Your task to perform on an android device: see tabs open on other devices in the chrome app Image 0: 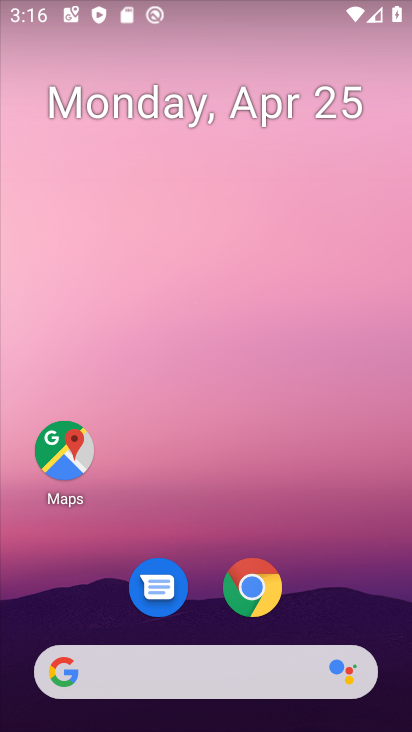
Step 0: click (246, 590)
Your task to perform on an android device: see tabs open on other devices in the chrome app Image 1: 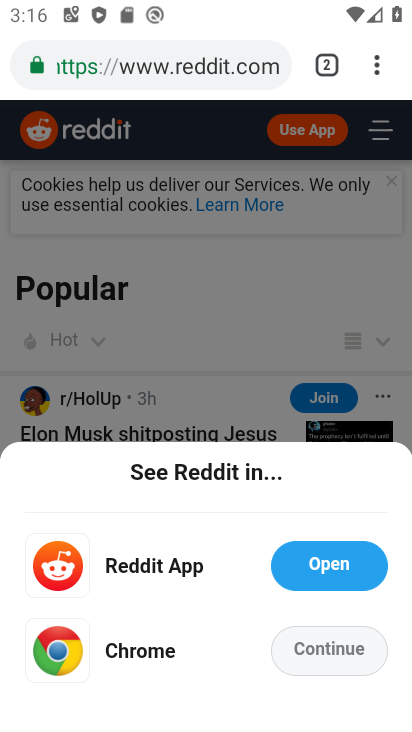
Step 1: press back button
Your task to perform on an android device: see tabs open on other devices in the chrome app Image 2: 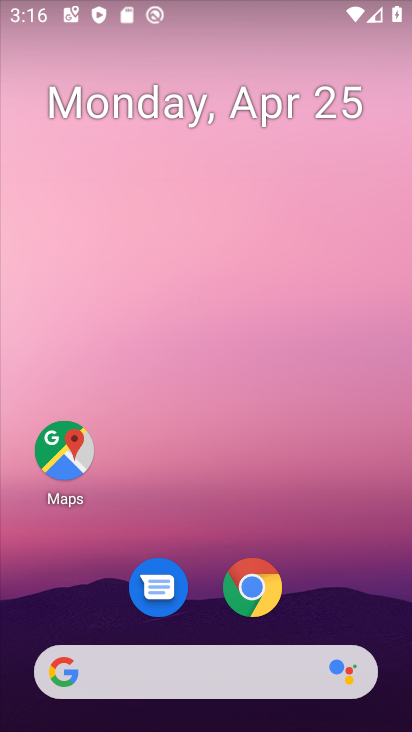
Step 2: click (252, 594)
Your task to perform on an android device: see tabs open on other devices in the chrome app Image 3: 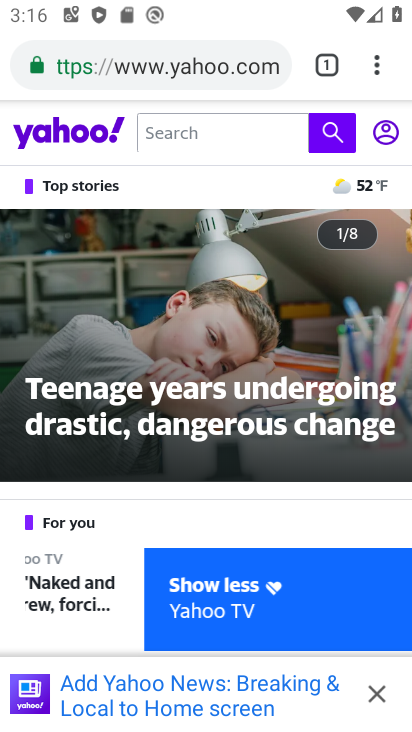
Step 3: click (328, 64)
Your task to perform on an android device: see tabs open on other devices in the chrome app Image 4: 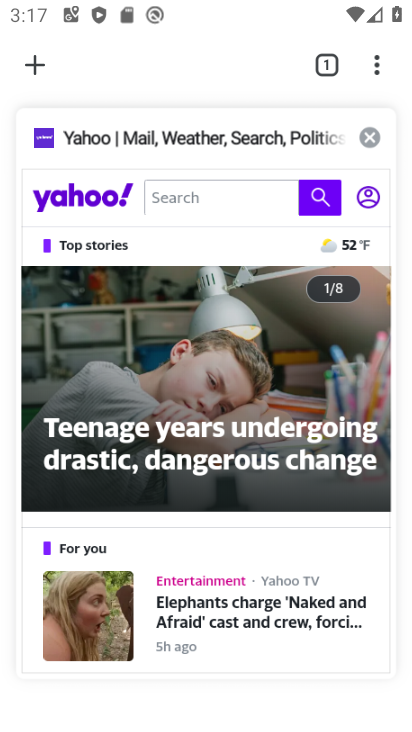
Step 4: task complete